Your task to perform on an android device: Go to display settings Image 0: 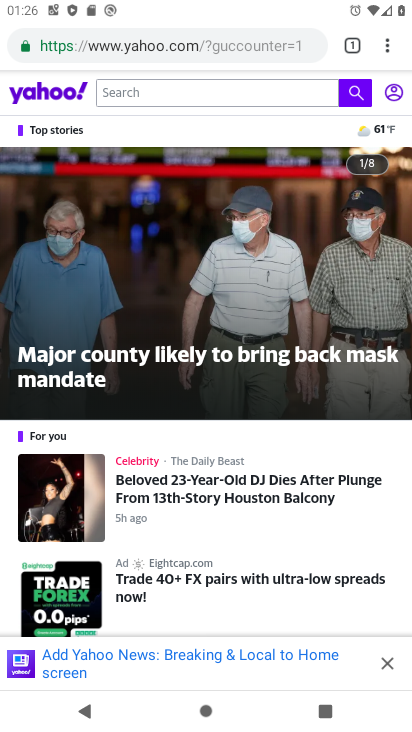
Step 0: press home button
Your task to perform on an android device: Go to display settings Image 1: 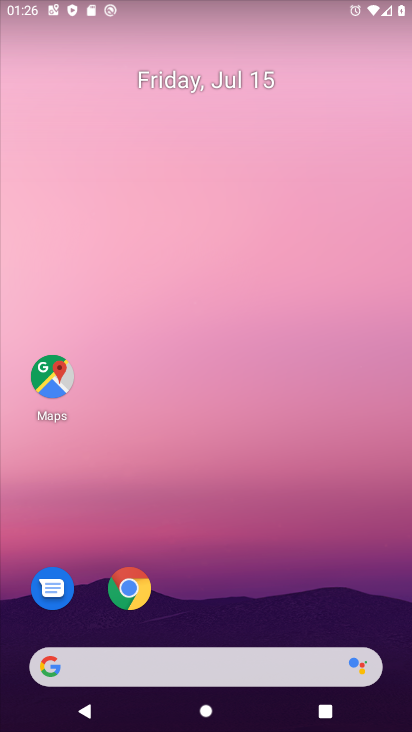
Step 1: drag from (370, 588) to (316, 174)
Your task to perform on an android device: Go to display settings Image 2: 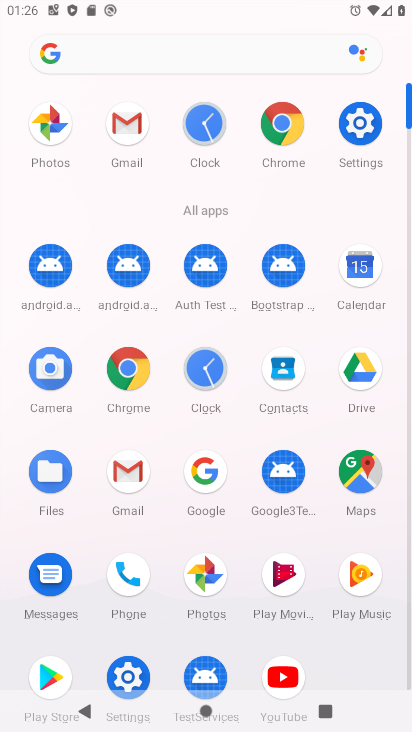
Step 2: click (124, 677)
Your task to perform on an android device: Go to display settings Image 3: 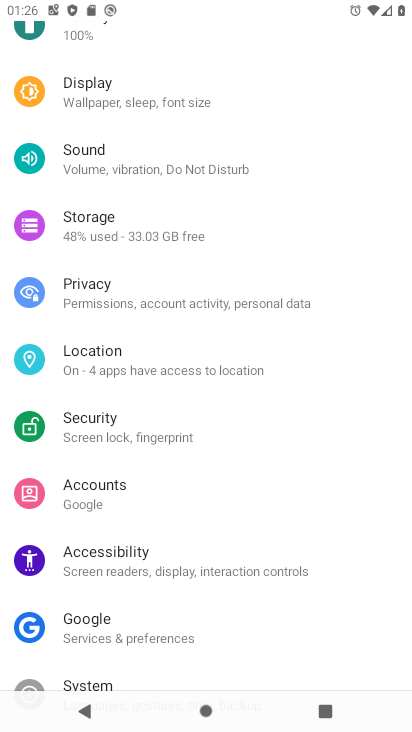
Step 3: click (85, 86)
Your task to perform on an android device: Go to display settings Image 4: 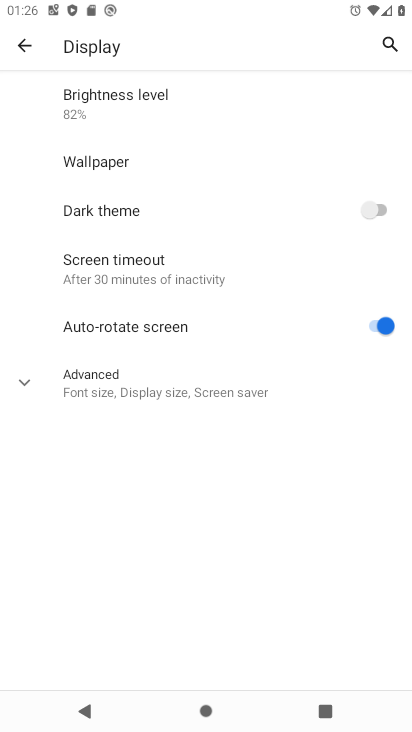
Step 4: click (19, 380)
Your task to perform on an android device: Go to display settings Image 5: 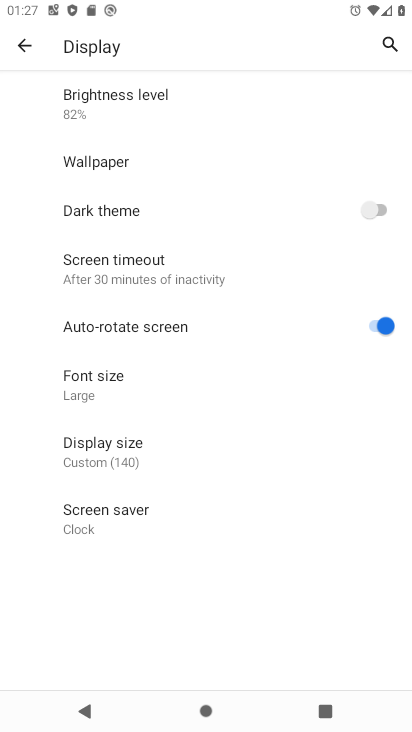
Step 5: task complete